Your task to perform on an android device: choose inbox layout in the gmail app Image 0: 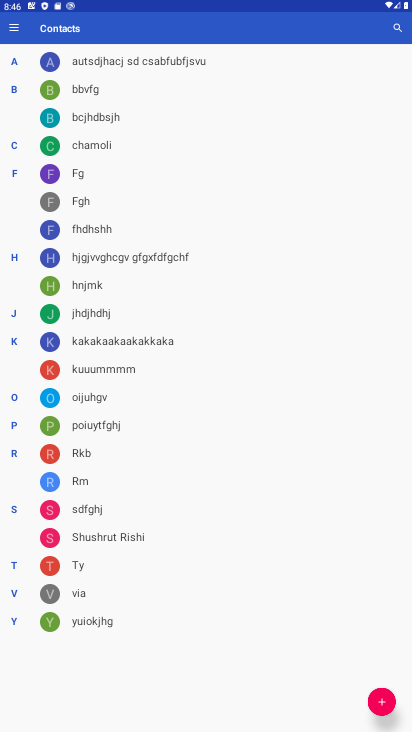
Step 0: press home button
Your task to perform on an android device: choose inbox layout in the gmail app Image 1: 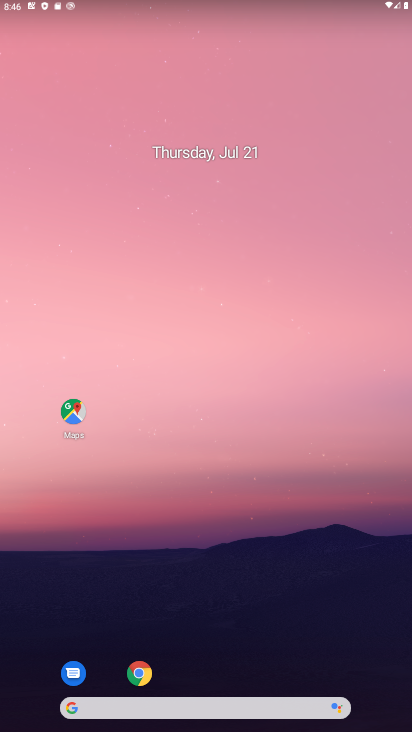
Step 1: drag from (205, 685) to (225, 301)
Your task to perform on an android device: choose inbox layout in the gmail app Image 2: 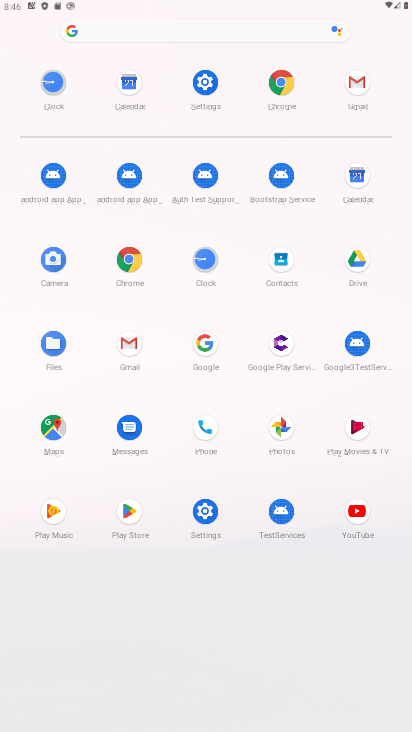
Step 2: click (132, 345)
Your task to perform on an android device: choose inbox layout in the gmail app Image 3: 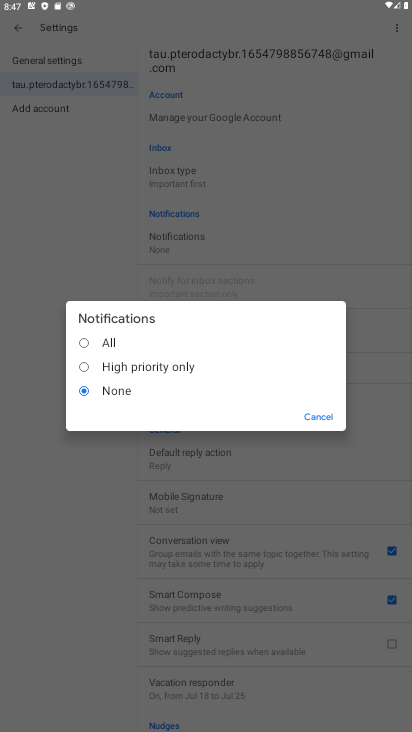
Step 3: click (323, 416)
Your task to perform on an android device: choose inbox layout in the gmail app Image 4: 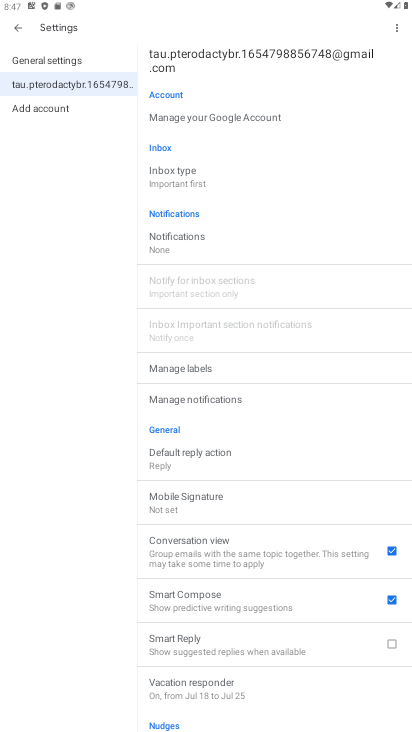
Step 4: click (187, 176)
Your task to perform on an android device: choose inbox layout in the gmail app Image 5: 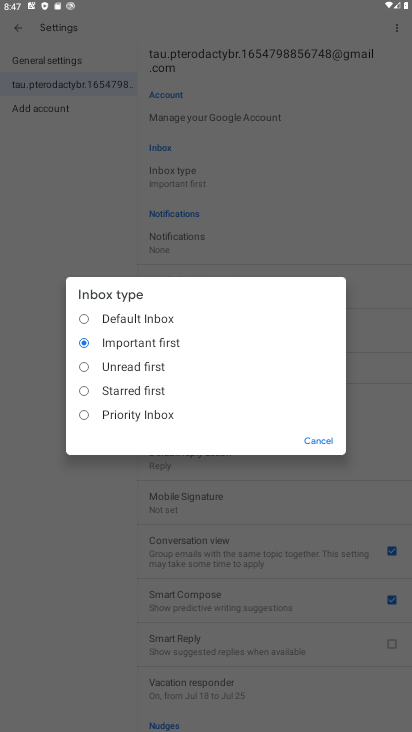
Step 5: click (86, 317)
Your task to perform on an android device: choose inbox layout in the gmail app Image 6: 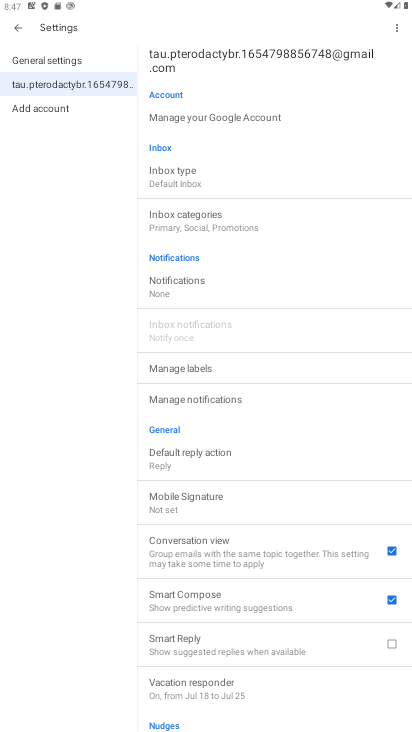
Step 6: task complete